Your task to perform on an android device: toggle notifications settings in the gmail app Image 0: 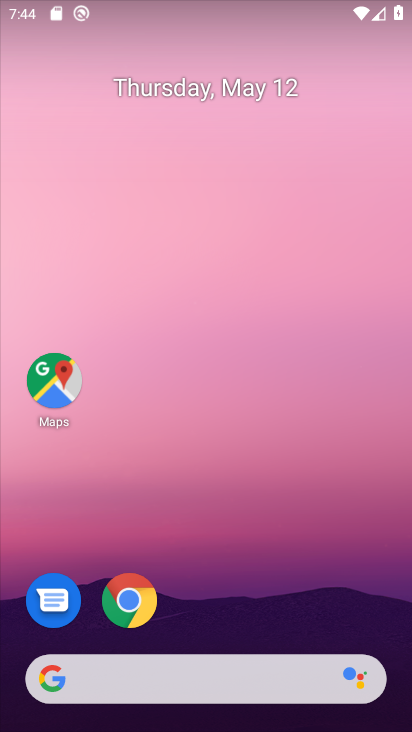
Step 0: drag from (256, 613) to (259, 243)
Your task to perform on an android device: toggle notifications settings in the gmail app Image 1: 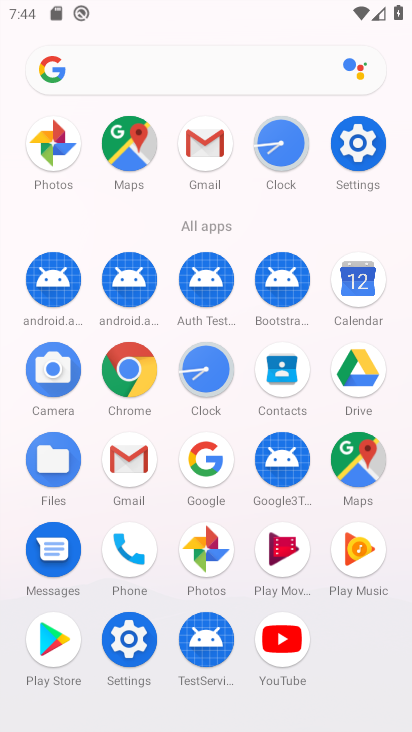
Step 1: click (206, 137)
Your task to perform on an android device: toggle notifications settings in the gmail app Image 2: 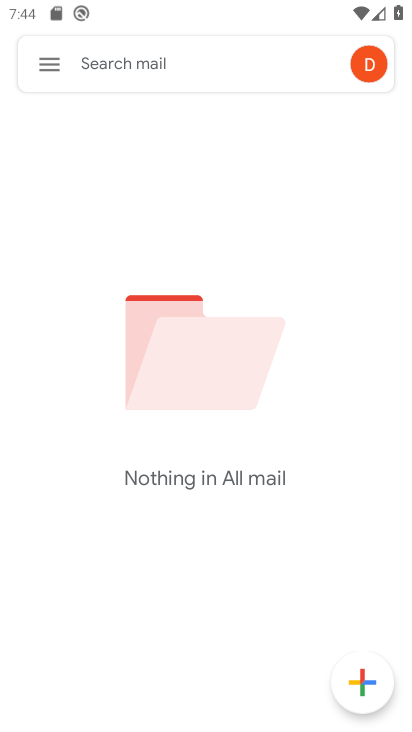
Step 2: click (52, 72)
Your task to perform on an android device: toggle notifications settings in the gmail app Image 3: 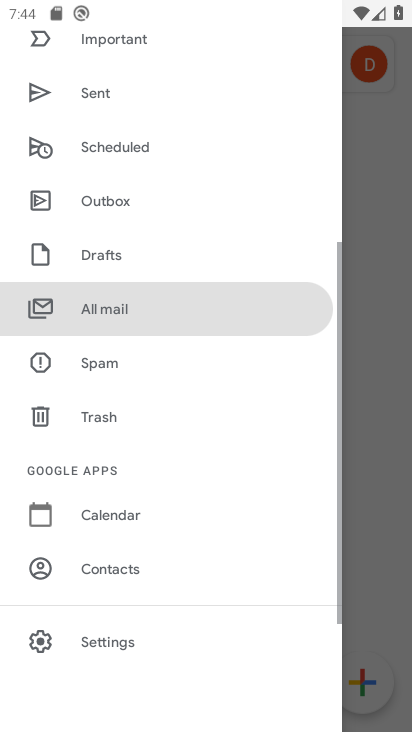
Step 3: drag from (269, 594) to (237, 81)
Your task to perform on an android device: toggle notifications settings in the gmail app Image 4: 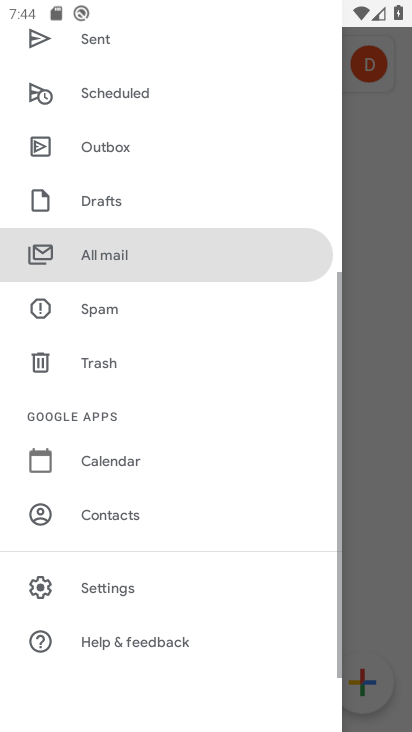
Step 4: click (142, 595)
Your task to perform on an android device: toggle notifications settings in the gmail app Image 5: 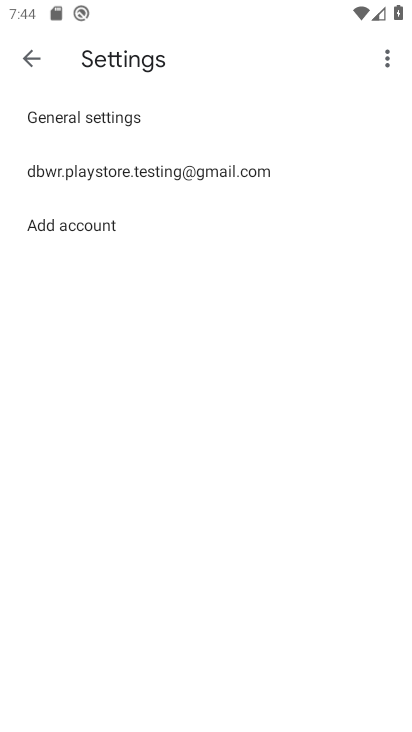
Step 5: click (144, 169)
Your task to perform on an android device: toggle notifications settings in the gmail app Image 6: 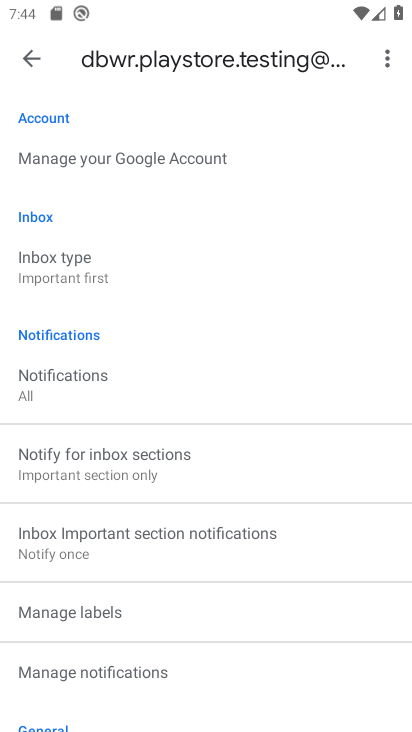
Step 6: click (132, 379)
Your task to perform on an android device: toggle notifications settings in the gmail app Image 7: 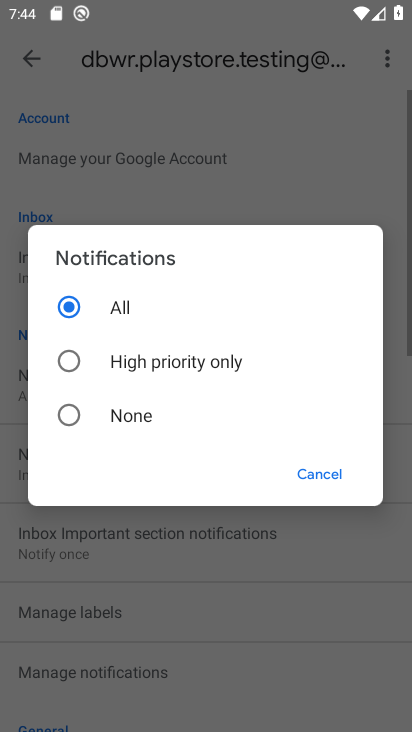
Step 7: click (174, 356)
Your task to perform on an android device: toggle notifications settings in the gmail app Image 8: 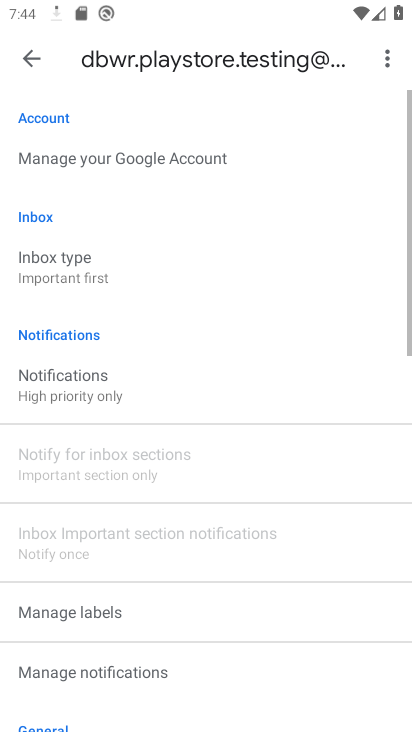
Step 8: task complete